Your task to perform on an android device: What is the average speed of a car? Image 0: 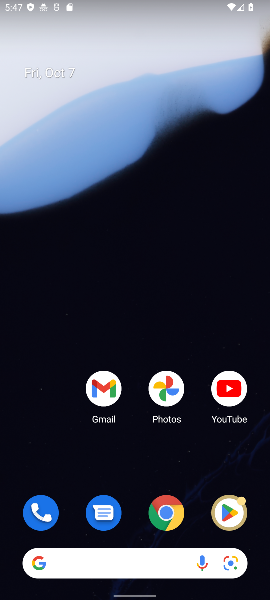
Step 0: click (153, 569)
Your task to perform on an android device: What is the average speed of a car? Image 1: 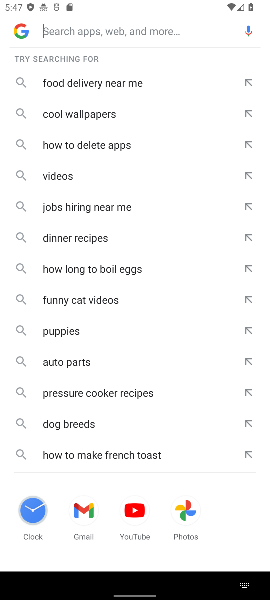
Step 1: type "What is the average speed of a car?"
Your task to perform on an android device: What is the average speed of a car? Image 2: 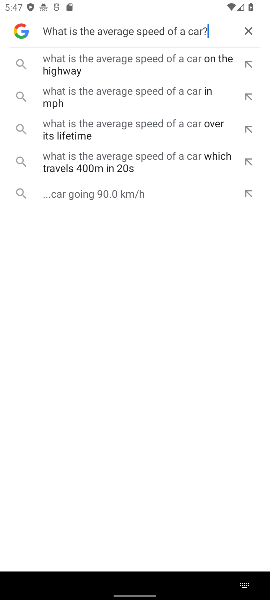
Step 2: click (119, 91)
Your task to perform on an android device: What is the average speed of a car? Image 3: 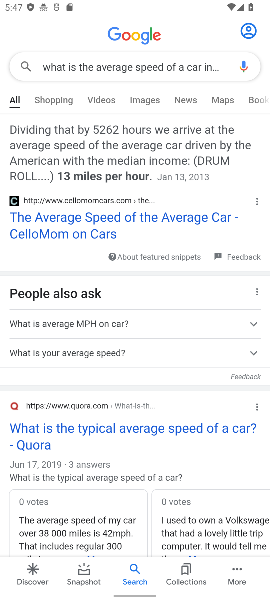
Step 3: click (135, 429)
Your task to perform on an android device: What is the average speed of a car? Image 4: 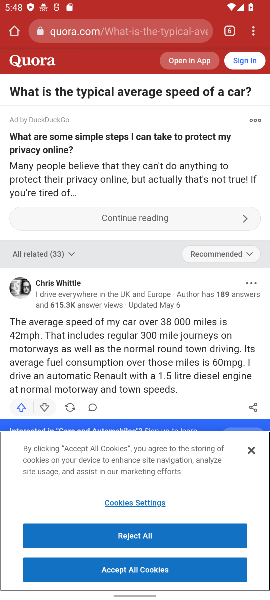
Step 4: task complete